Your task to perform on an android device: remove spam from my inbox in the gmail app Image 0: 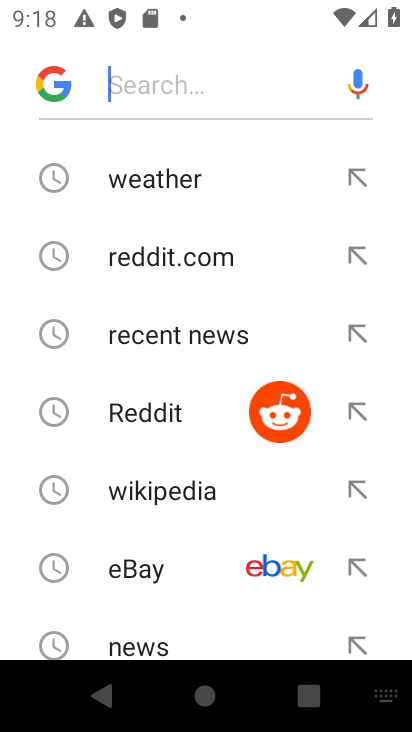
Step 0: press back button
Your task to perform on an android device: remove spam from my inbox in the gmail app Image 1: 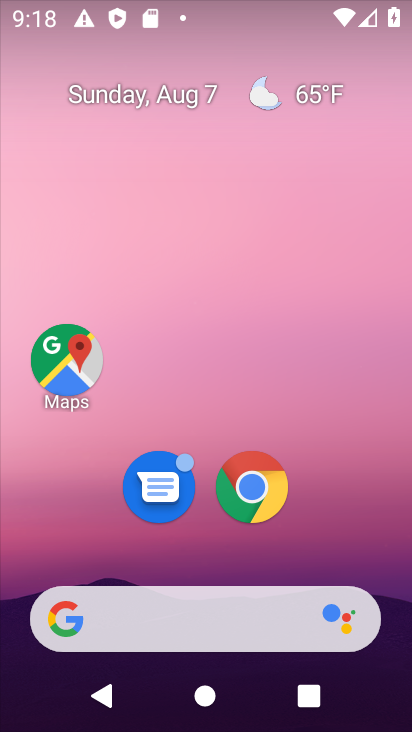
Step 1: drag from (392, 710) to (224, 2)
Your task to perform on an android device: remove spam from my inbox in the gmail app Image 2: 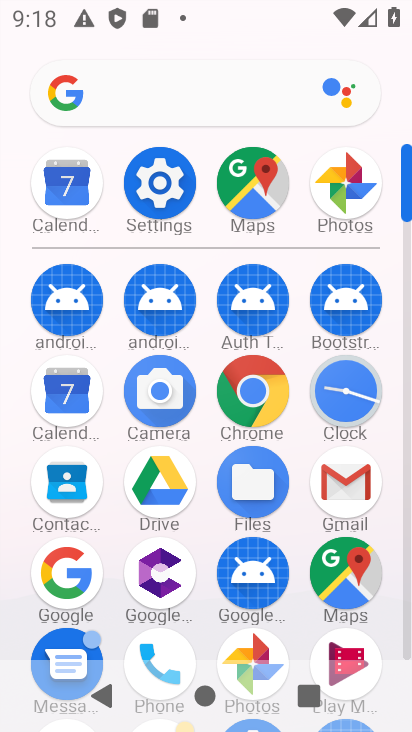
Step 2: click (350, 484)
Your task to perform on an android device: remove spam from my inbox in the gmail app Image 3: 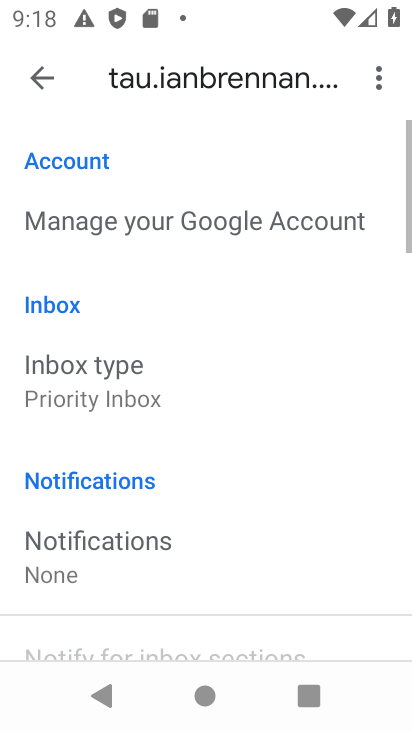
Step 3: click (32, 82)
Your task to perform on an android device: remove spam from my inbox in the gmail app Image 4: 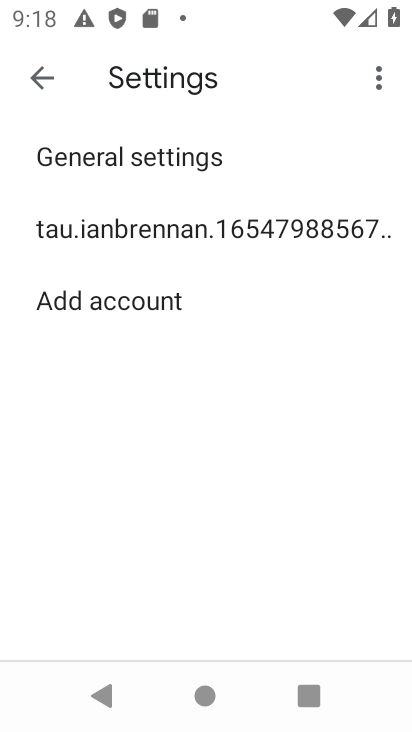
Step 4: click (32, 80)
Your task to perform on an android device: remove spam from my inbox in the gmail app Image 5: 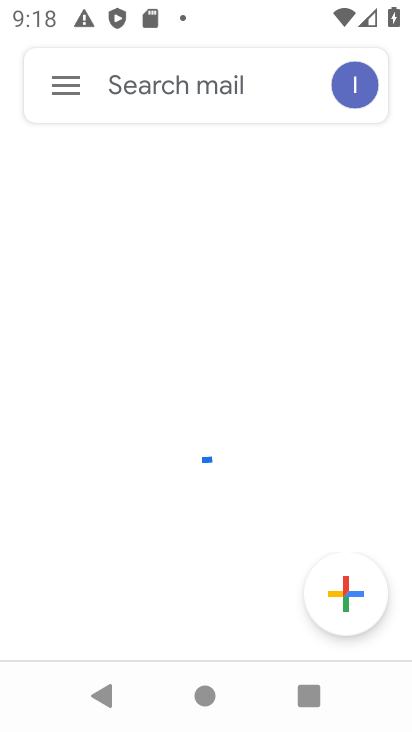
Step 5: click (59, 85)
Your task to perform on an android device: remove spam from my inbox in the gmail app Image 6: 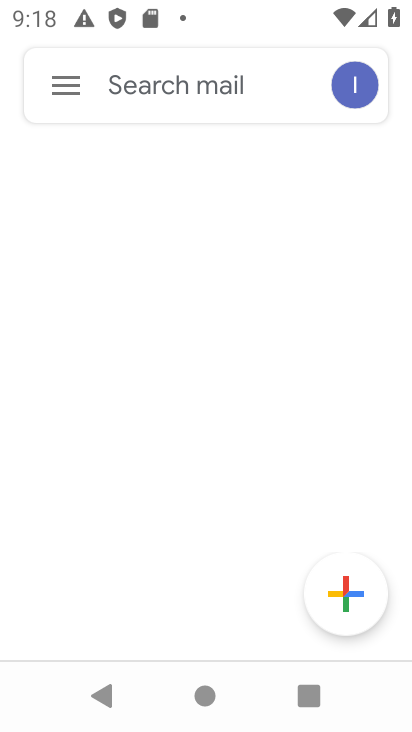
Step 6: drag from (288, 616) to (286, 208)
Your task to perform on an android device: remove spam from my inbox in the gmail app Image 7: 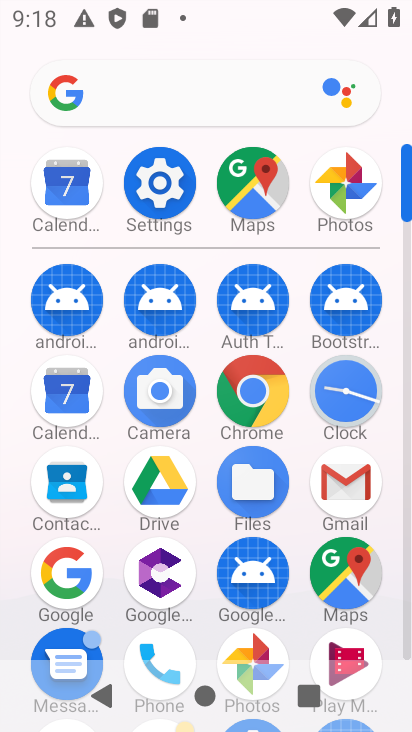
Step 7: click (349, 475)
Your task to perform on an android device: remove spam from my inbox in the gmail app Image 8: 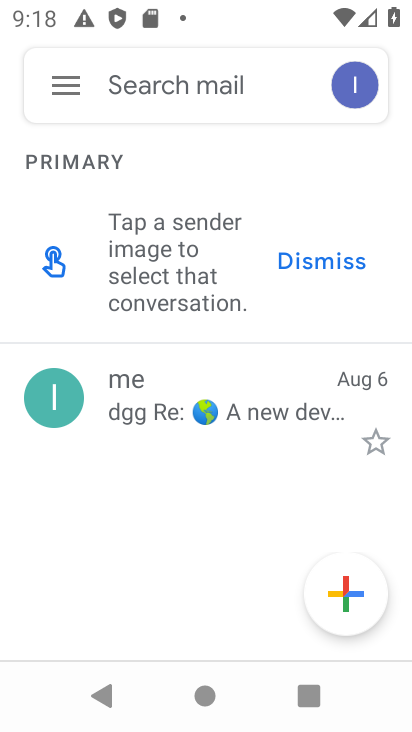
Step 8: click (63, 81)
Your task to perform on an android device: remove spam from my inbox in the gmail app Image 9: 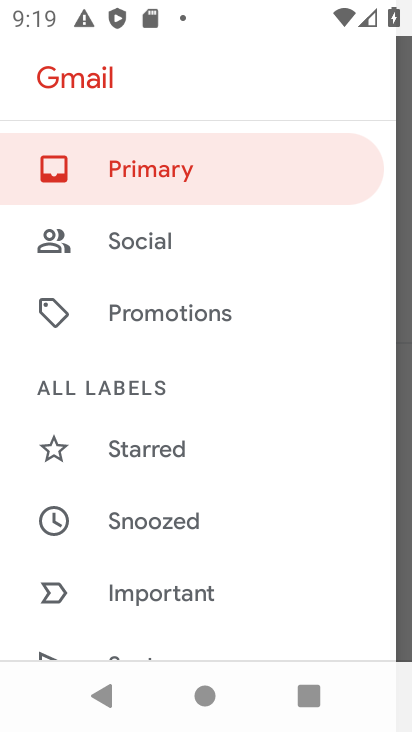
Step 9: drag from (266, 548) to (256, 143)
Your task to perform on an android device: remove spam from my inbox in the gmail app Image 10: 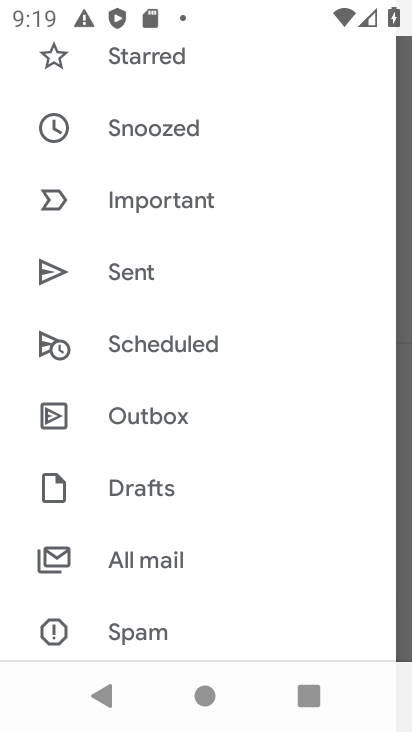
Step 10: click (117, 625)
Your task to perform on an android device: remove spam from my inbox in the gmail app Image 11: 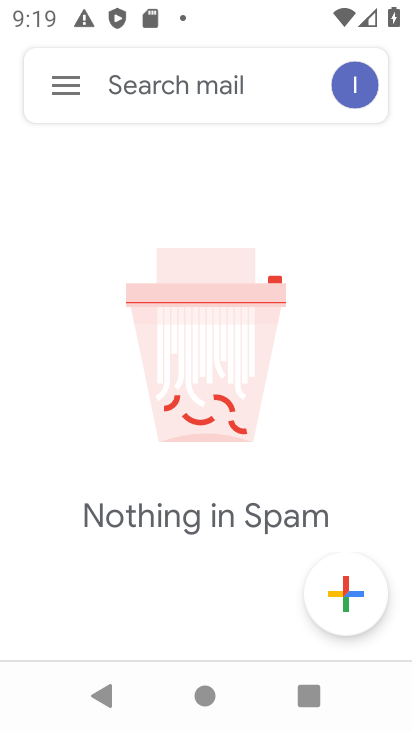
Step 11: task complete